Your task to perform on an android device: allow cookies in the chrome app Image 0: 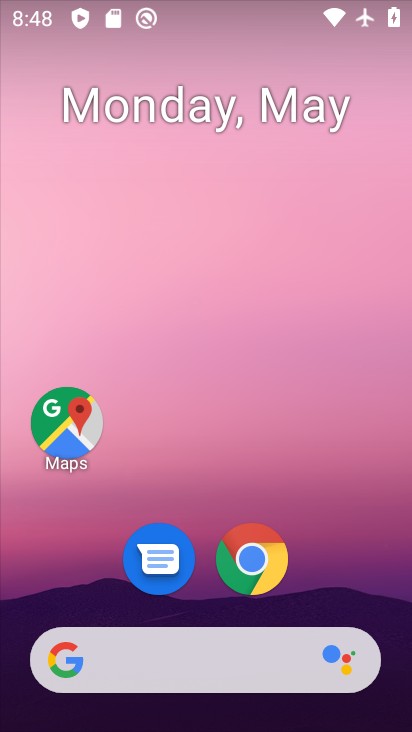
Step 0: click (241, 563)
Your task to perform on an android device: allow cookies in the chrome app Image 1: 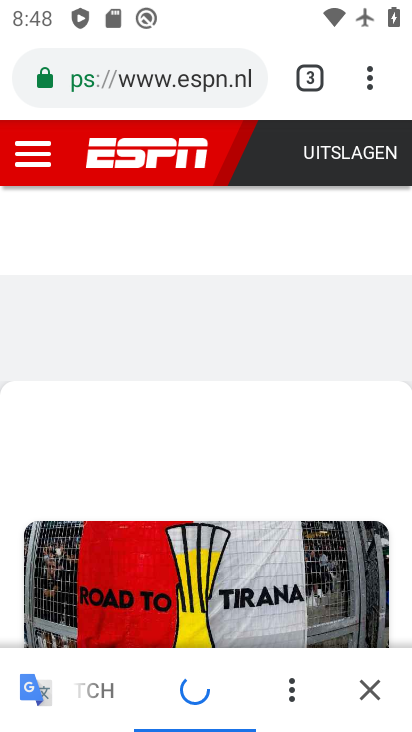
Step 1: click (363, 81)
Your task to perform on an android device: allow cookies in the chrome app Image 2: 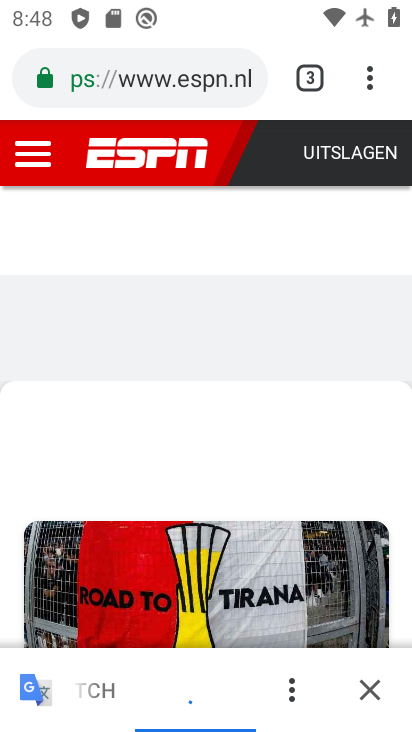
Step 2: click (362, 81)
Your task to perform on an android device: allow cookies in the chrome app Image 3: 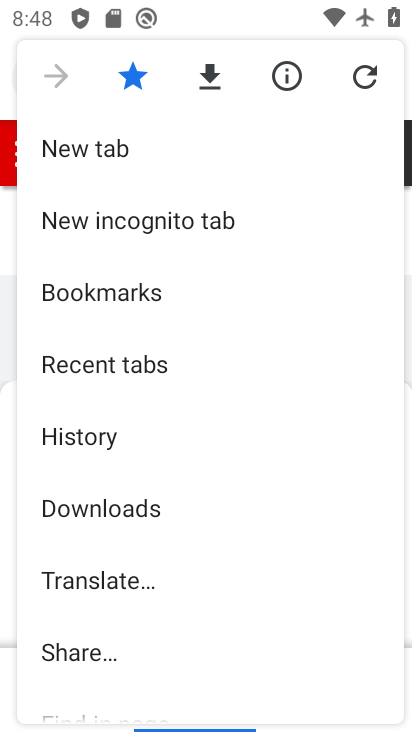
Step 3: drag from (185, 639) to (162, 250)
Your task to perform on an android device: allow cookies in the chrome app Image 4: 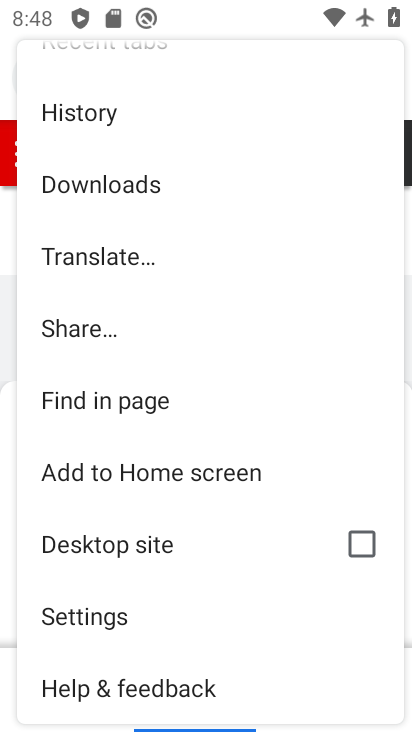
Step 4: click (114, 608)
Your task to perform on an android device: allow cookies in the chrome app Image 5: 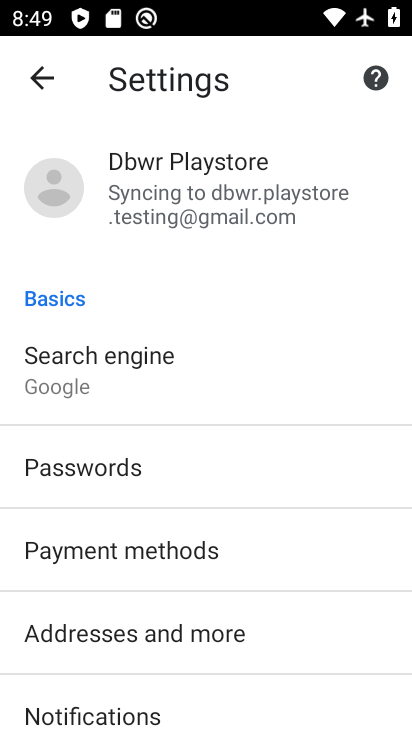
Step 5: drag from (161, 693) to (177, 382)
Your task to perform on an android device: allow cookies in the chrome app Image 6: 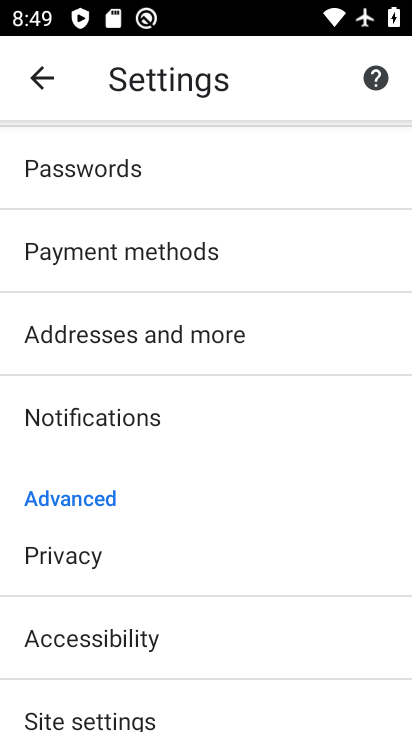
Step 6: click (167, 704)
Your task to perform on an android device: allow cookies in the chrome app Image 7: 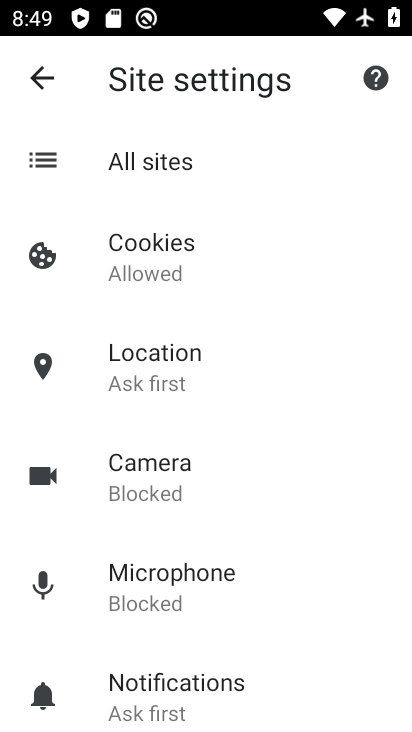
Step 7: click (161, 263)
Your task to perform on an android device: allow cookies in the chrome app Image 8: 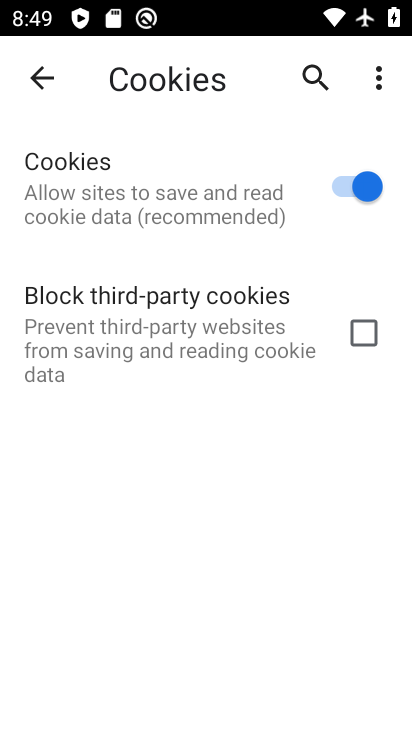
Step 8: task complete